Your task to perform on an android device: Open Wikipedia Image 0: 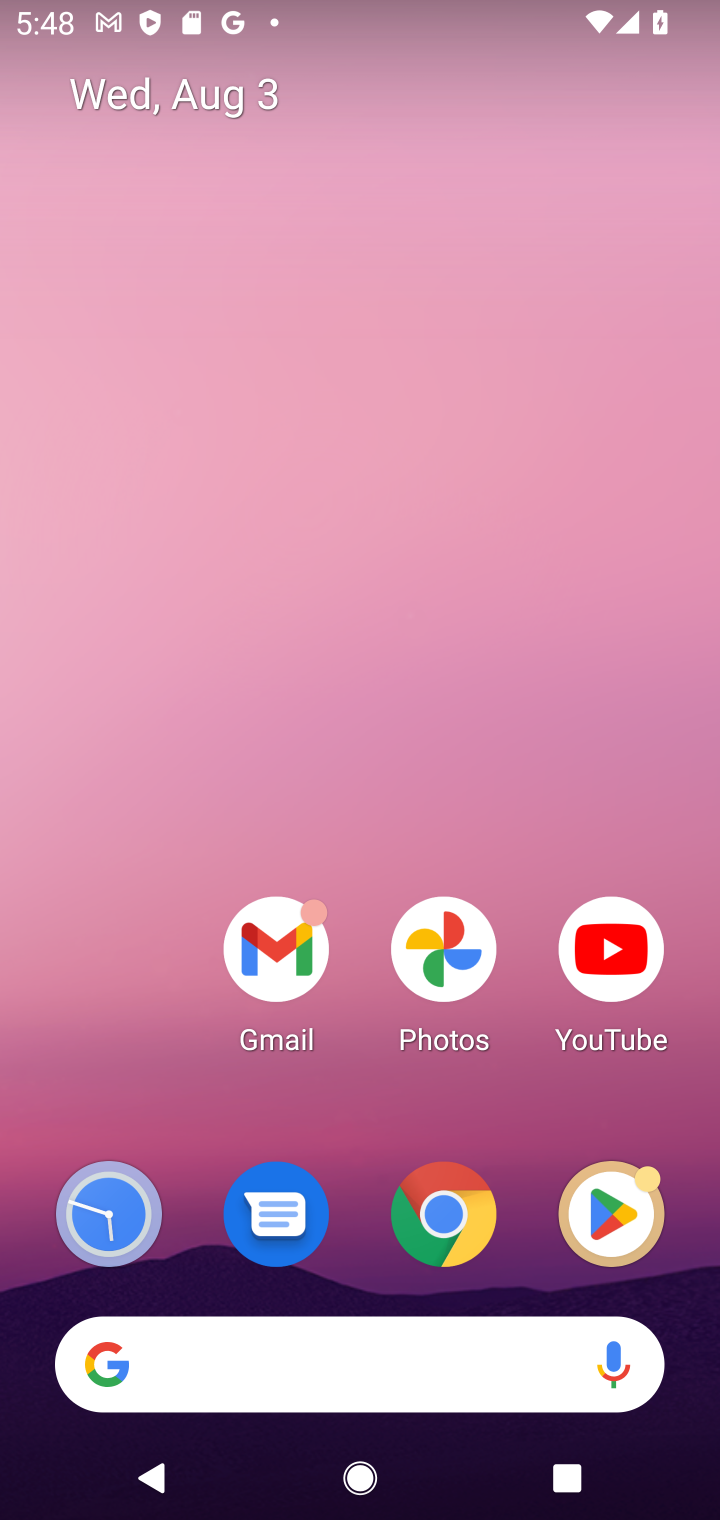
Step 0: click (449, 1197)
Your task to perform on an android device: Open Wikipedia Image 1: 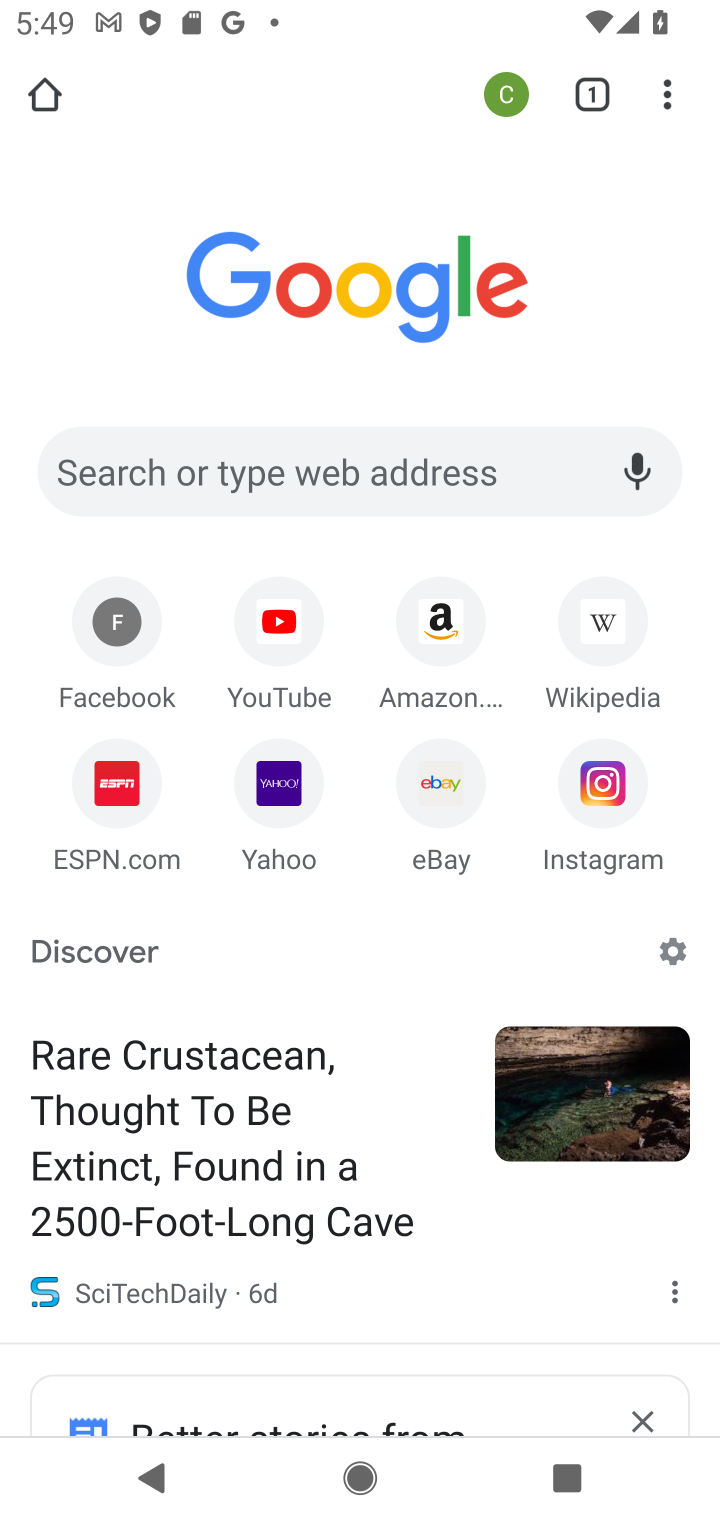
Step 1: click (606, 618)
Your task to perform on an android device: Open Wikipedia Image 2: 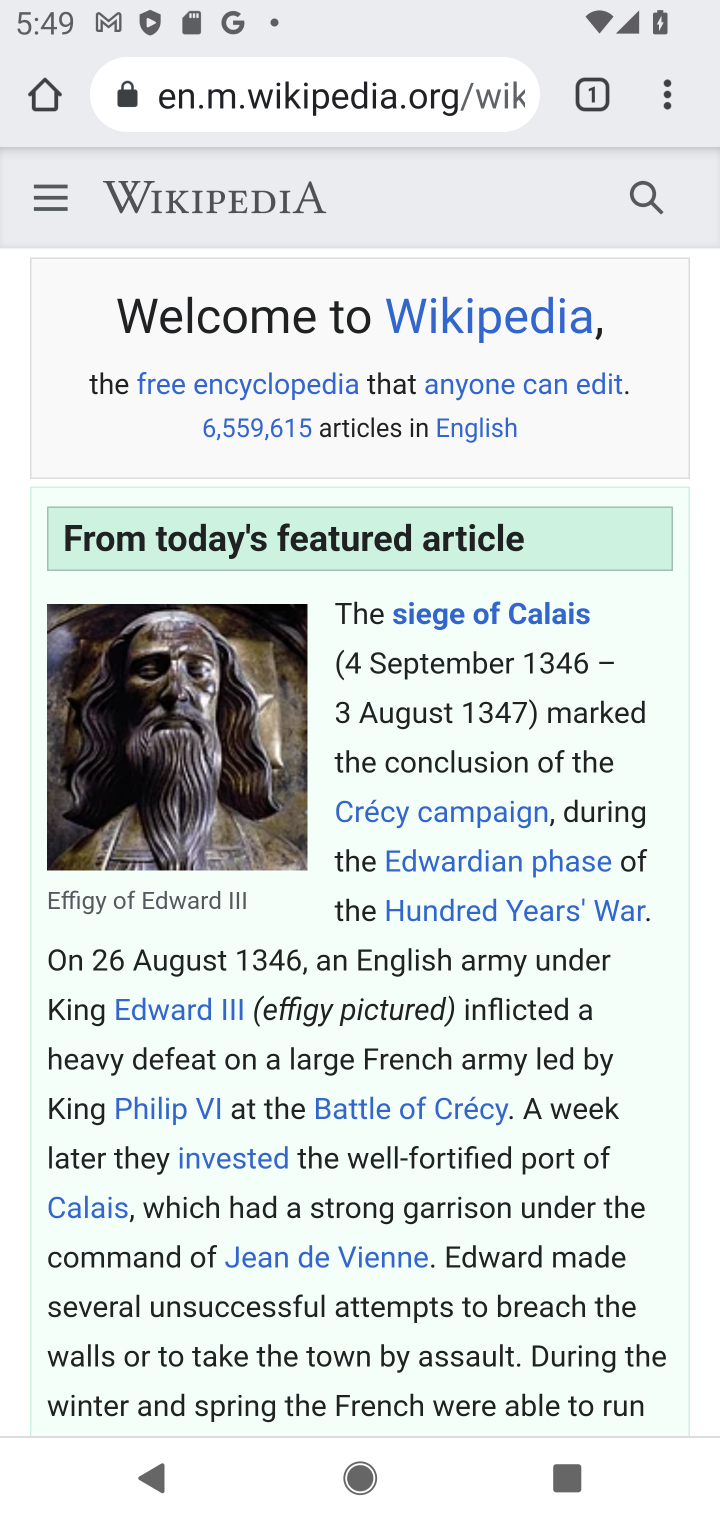
Step 2: task complete